Your task to perform on an android device: What's on my calendar today? Image 0: 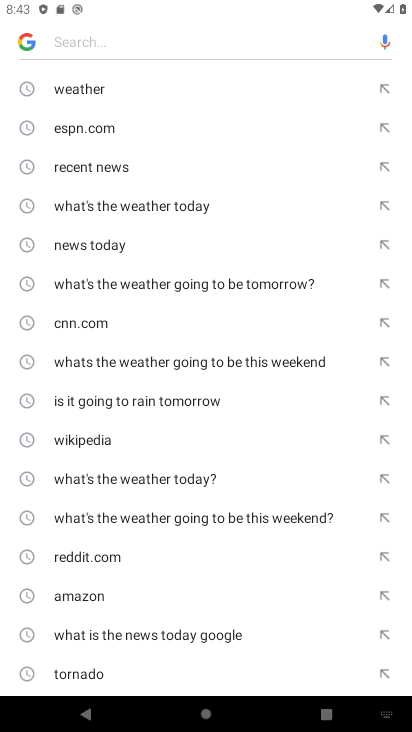
Step 0: press home button
Your task to perform on an android device: What's on my calendar today? Image 1: 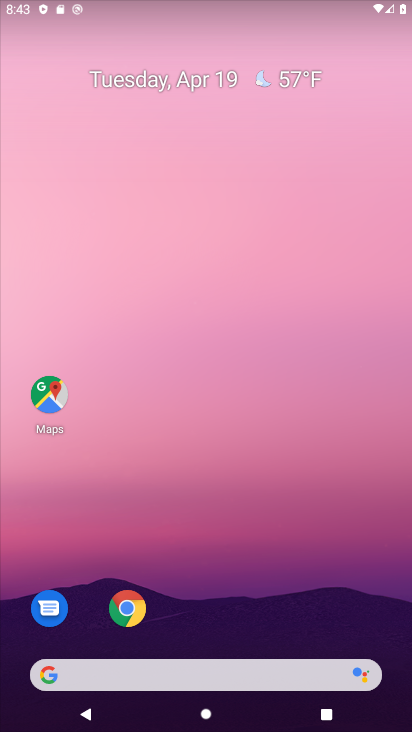
Step 1: drag from (245, 421) to (255, 169)
Your task to perform on an android device: What's on my calendar today? Image 2: 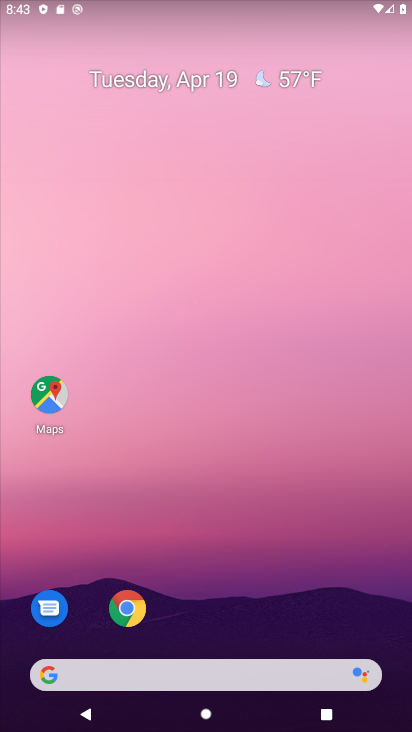
Step 2: drag from (220, 589) to (245, 98)
Your task to perform on an android device: What's on my calendar today? Image 3: 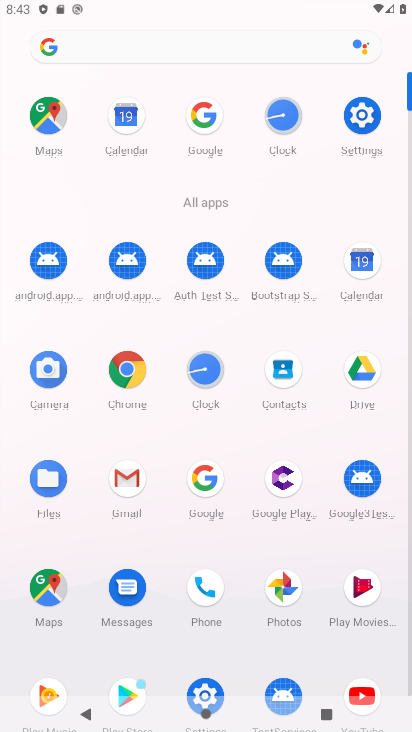
Step 3: click (361, 263)
Your task to perform on an android device: What's on my calendar today? Image 4: 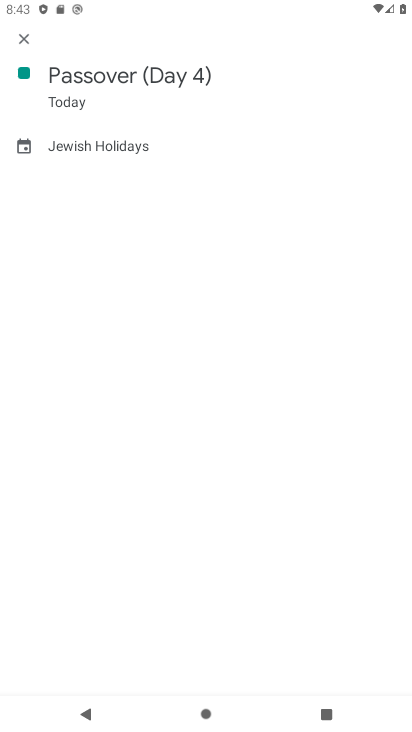
Step 4: press back button
Your task to perform on an android device: What's on my calendar today? Image 5: 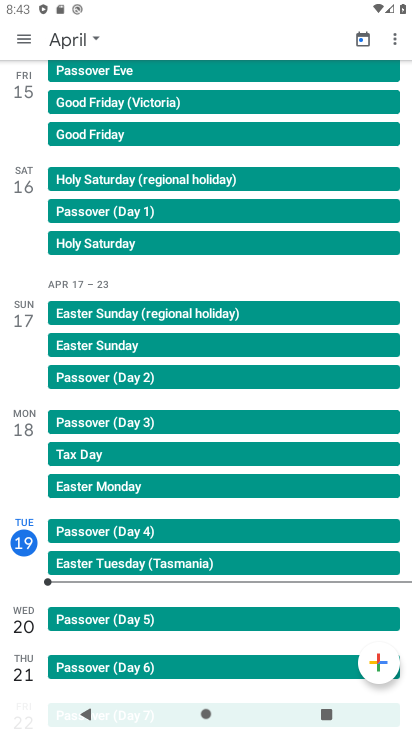
Step 5: click (92, 38)
Your task to perform on an android device: What's on my calendar today? Image 6: 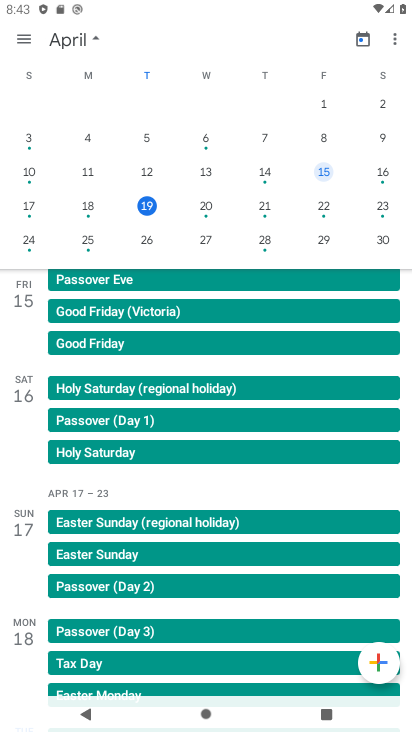
Step 6: click (145, 206)
Your task to perform on an android device: What's on my calendar today? Image 7: 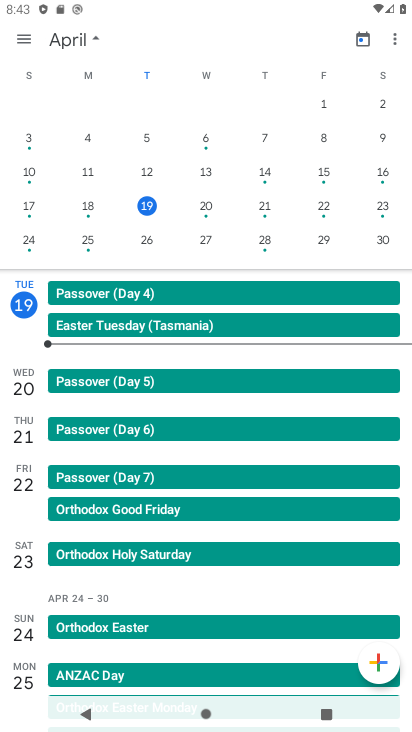
Step 7: task complete